Your task to perform on an android device: Check the news Image 0: 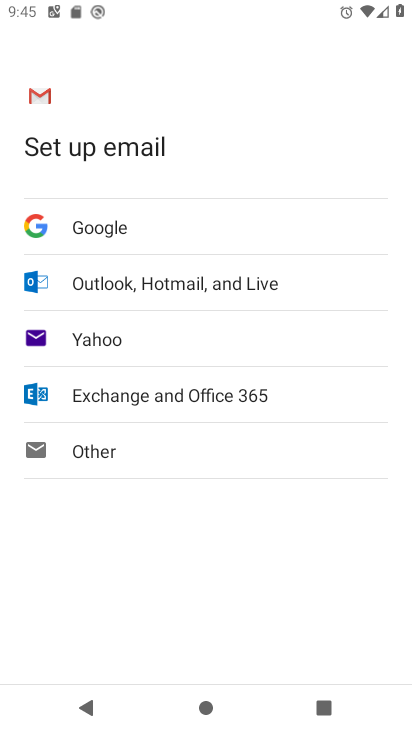
Step 0: press home button
Your task to perform on an android device: Check the news Image 1: 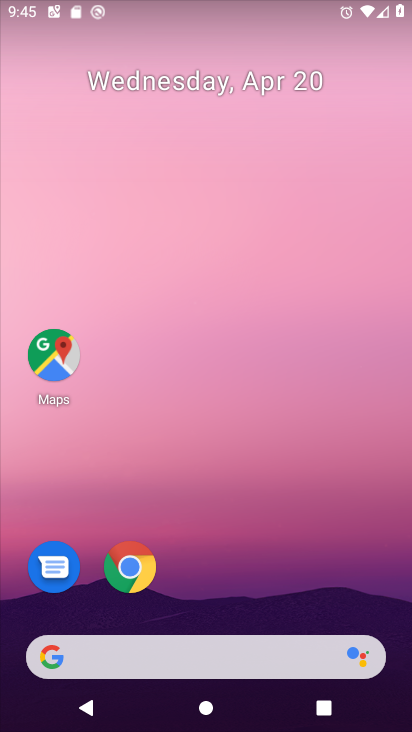
Step 1: task complete